Your task to perform on an android device: Open Amazon Image 0: 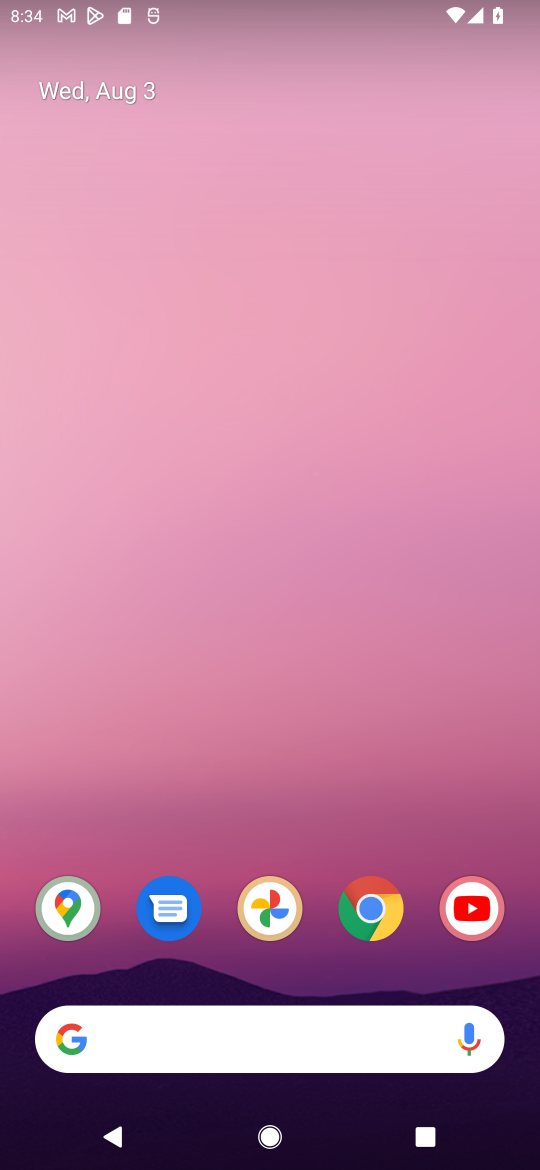
Step 0: click (362, 907)
Your task to perform on an android device: Open Amazon Image 1: 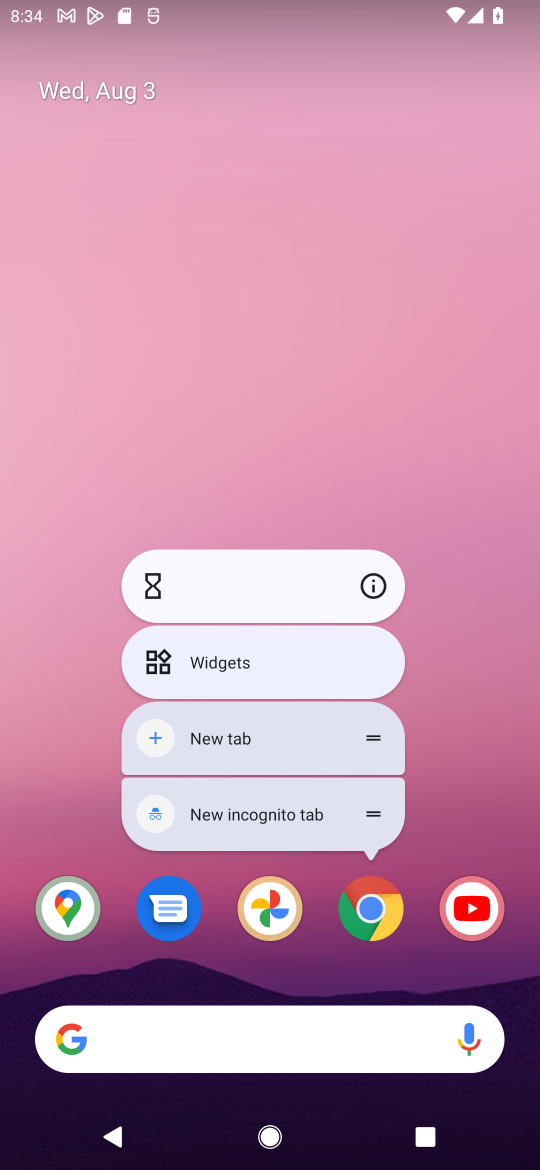
Step 1: click (362, 907)
Your task to perform on an android device: Open Amazon Image 2: 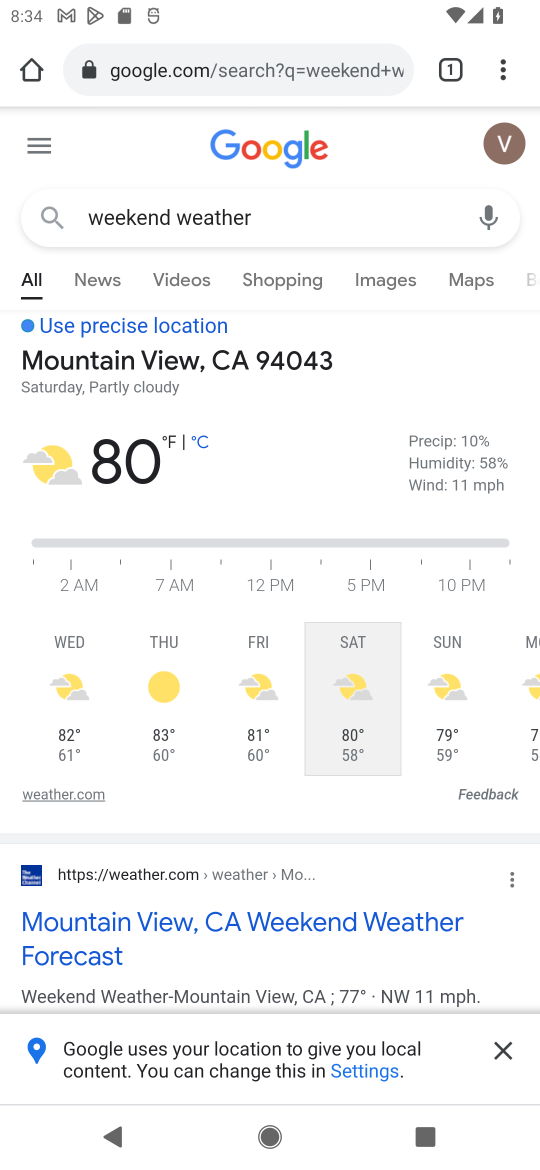
Step 2: click (278, 78)
Your task to perform on an android device: Open Amazon Image 3: 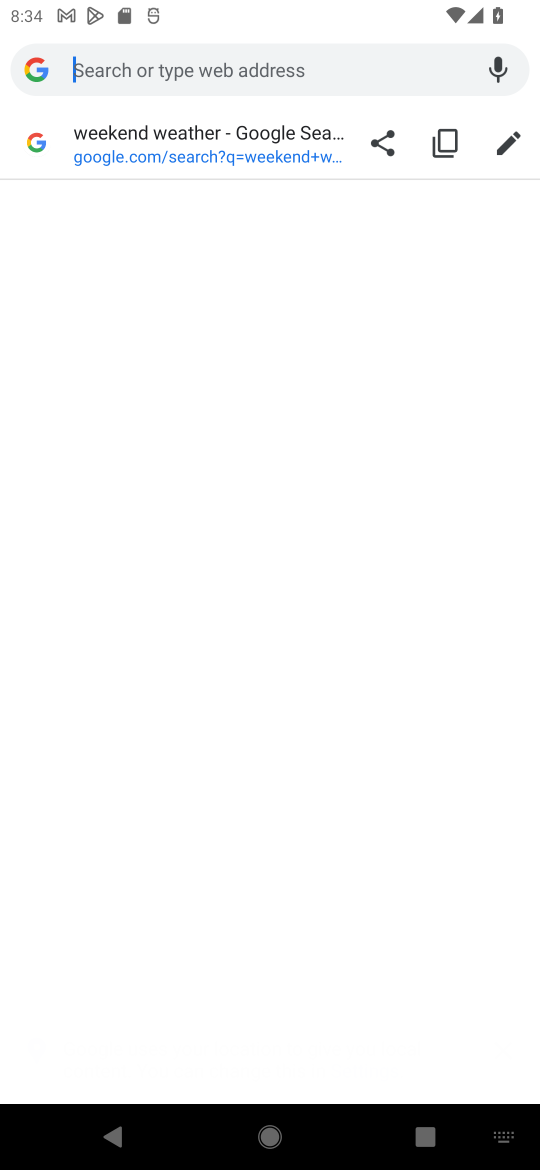
Step 3: type "amazon"
Your task to perform on an android device: Open Amazon Image 4: 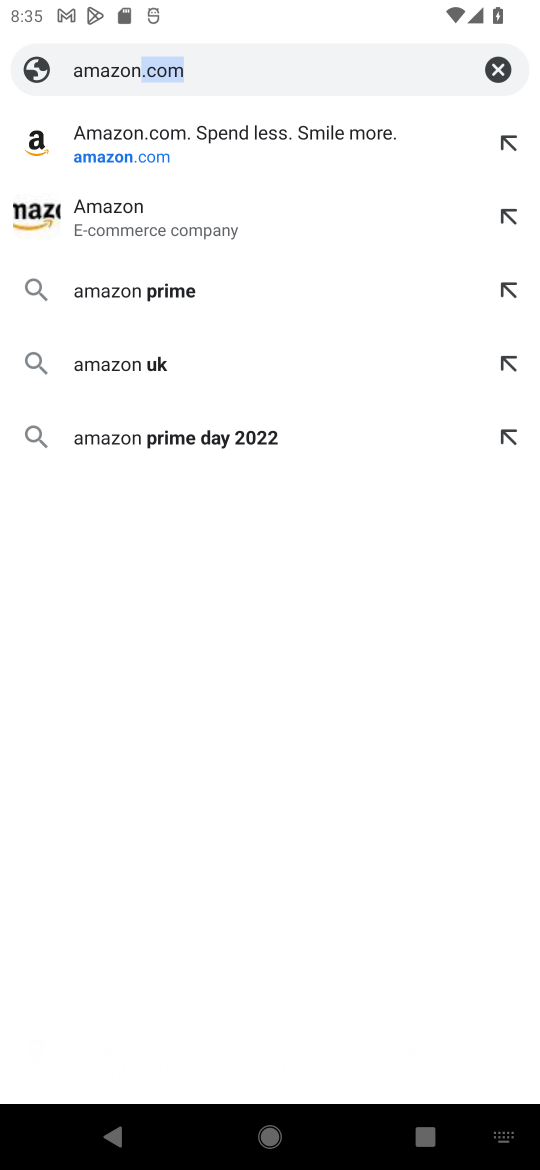
Step 4: click (223, 139)
Your task to perform on an android device: Open Amazon Image 5: 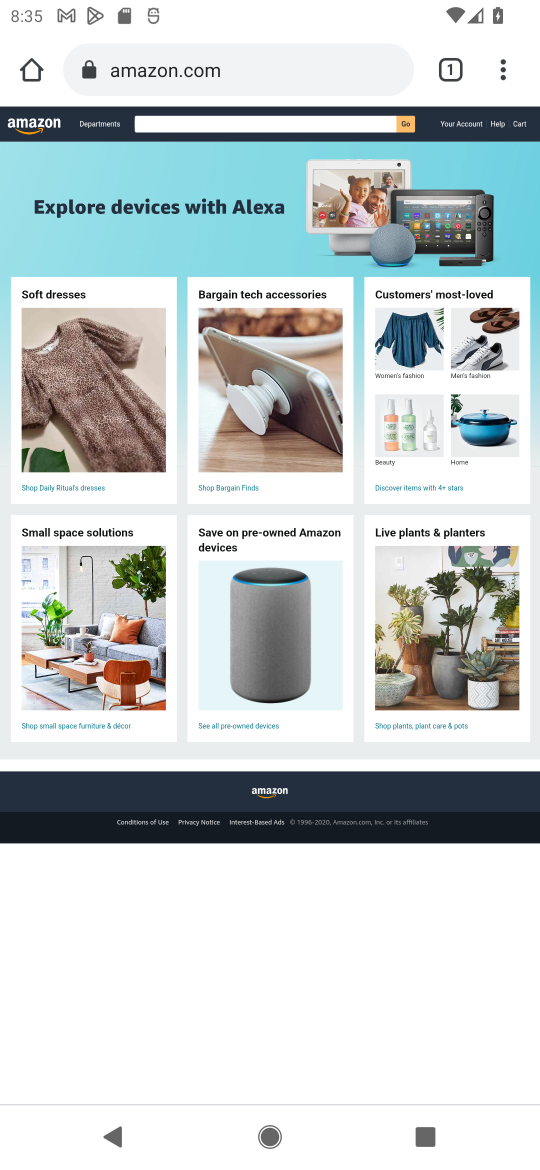
Step 5: task complete